Your task to perform on an android device: Go to internet settings Image 0: 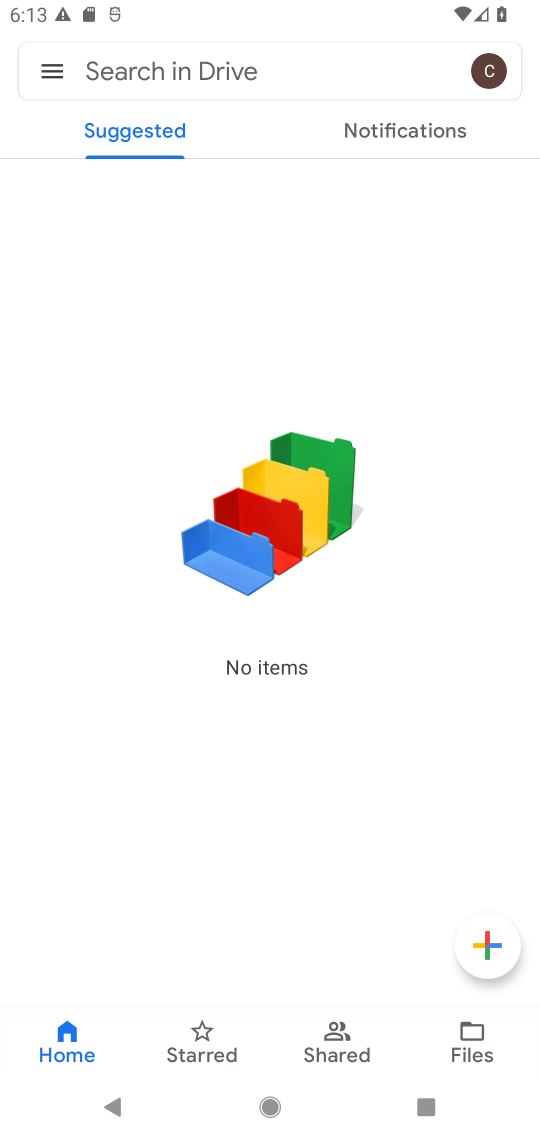
Step 0: press home button
Your task to perform on an android device: Go to internet settings Image 1: 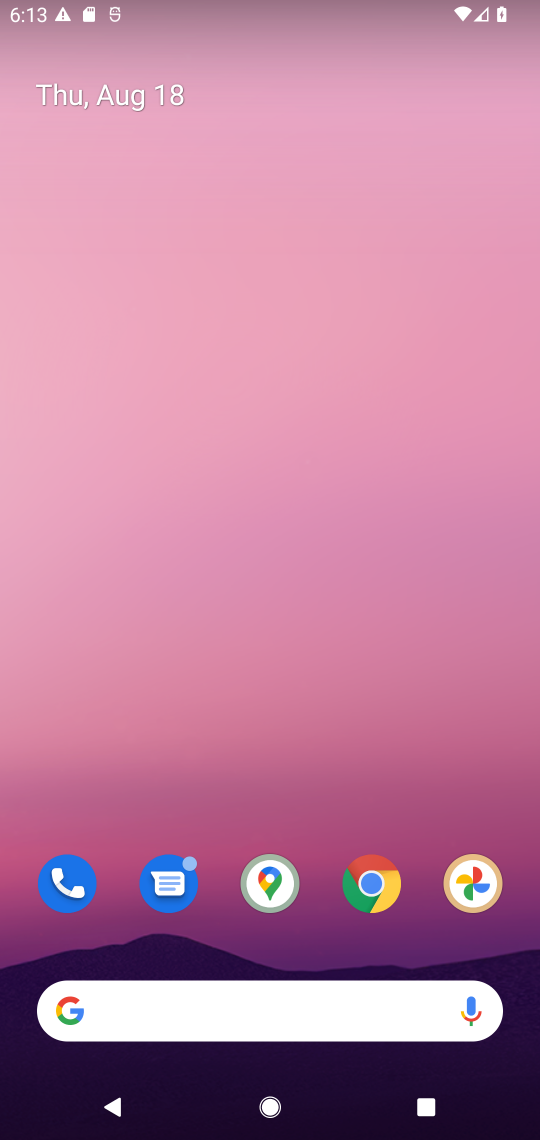
Step 1: drag from (43, 1074) to (398, 381)
Your task to perform on an android device: Go to internet settings Image 2: 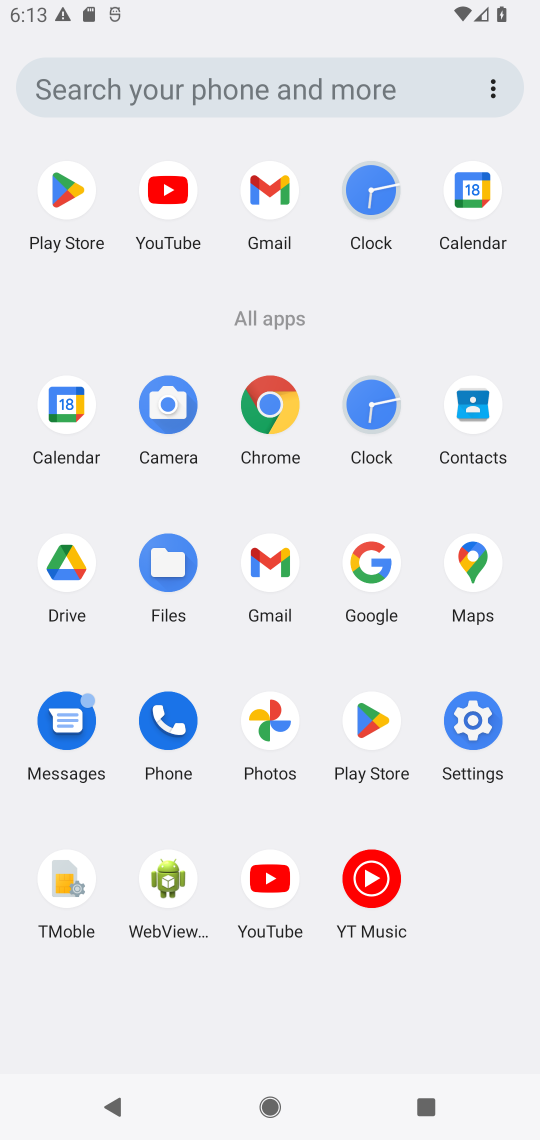
Step 2: click (450, 740)
Your task to perform on an android device: Go to internet settings Image 3: 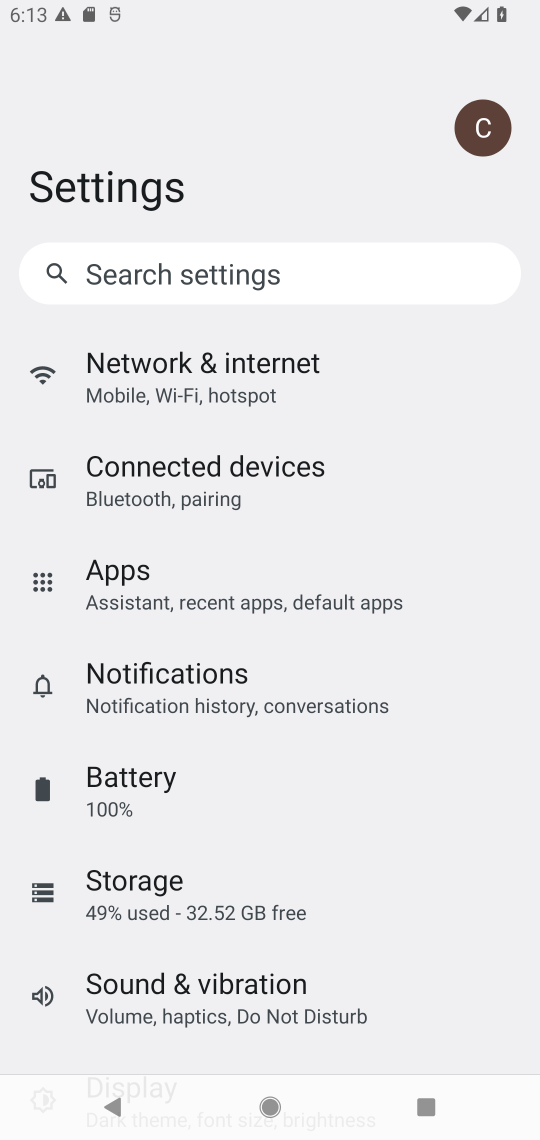
Step 3: click (149, 377)
Your task to perform on an android device: Go to internet settings Image 4: 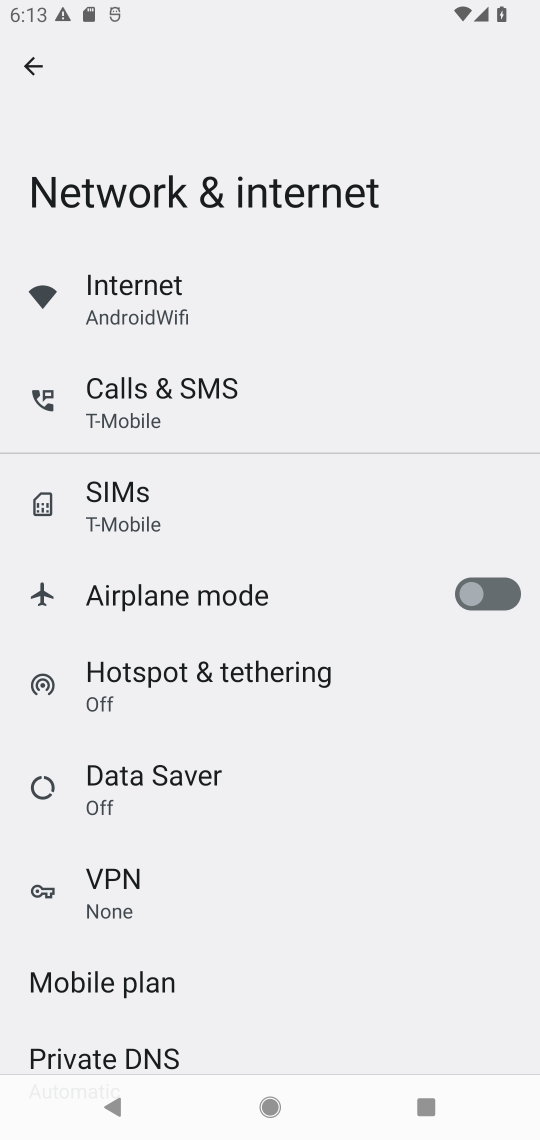
Step 4: click (145, 282)
Your task to perform on an android device: Go to internet settings Image 5: 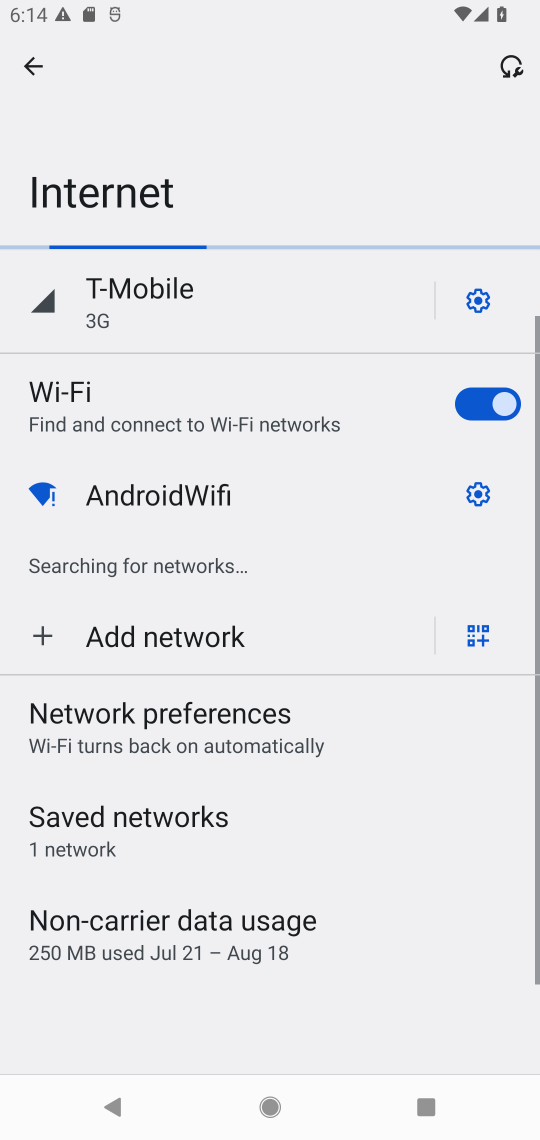
Step 5: task complete